Your task to perform on an android device: Open calendar and show me the first week of next month Image 0: 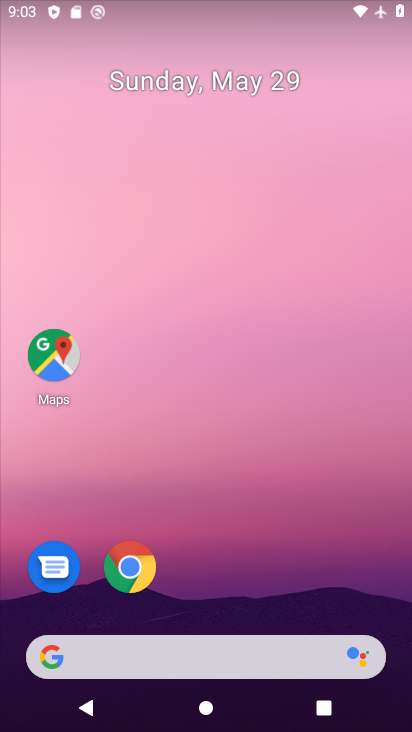
Step 0: drag from (397, 619) to (283, 50)
Your task to perform on an android device: Open calendar and show me the first week of next month Image 1: 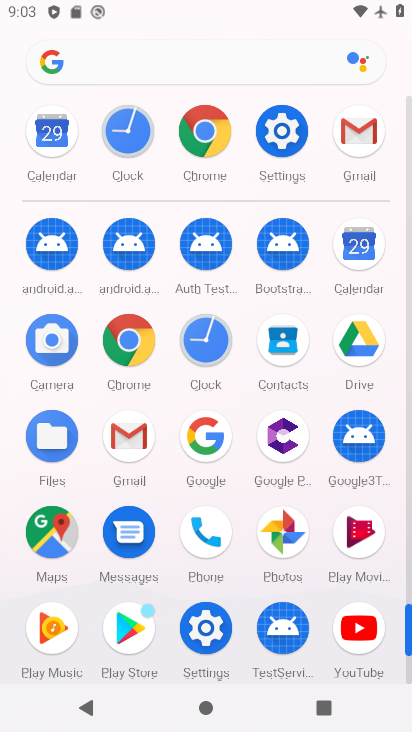
Step 1: click (358, 248)
Your task to perform on an android device: Open calendar and show me the first week of next month Image 2: 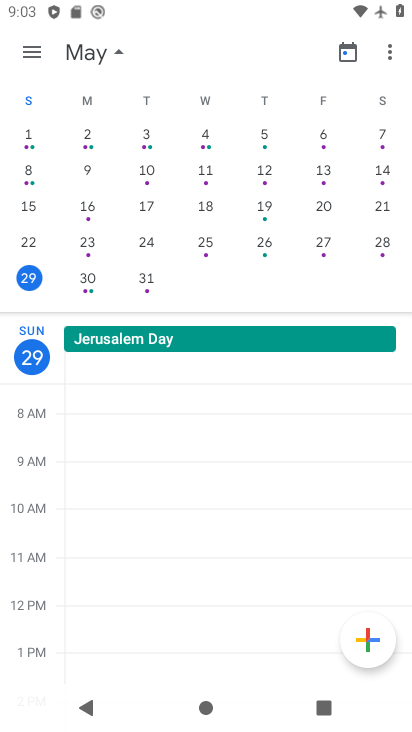
Step 2: click (27, 46)
Your task to perform on an android device: Open calendar and show me the first week of next month Image 3: 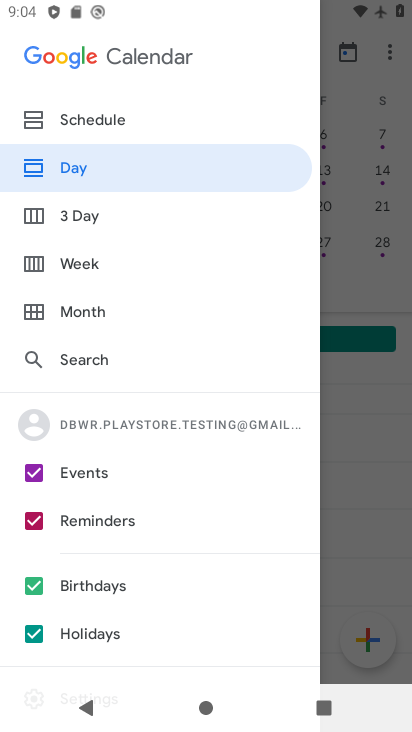
Step 3: click (78, 273)
Your task to perform on an android device: Open calendar and show me the first week of next month Image 4: 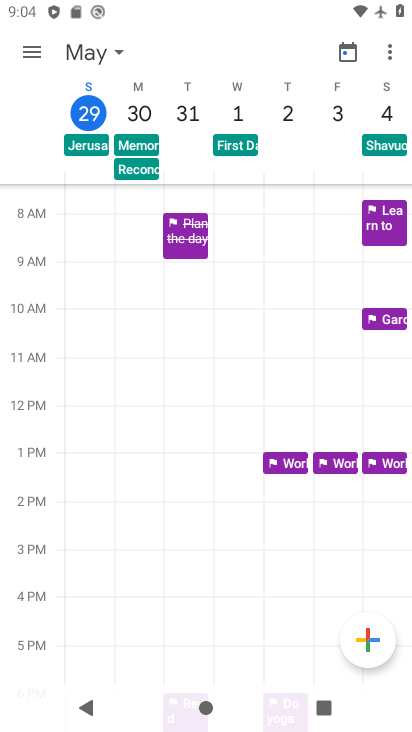
Step 4: click (119, 56)
Your task to perform on an android device: Open calendar and show me the first week of next month Image 5: 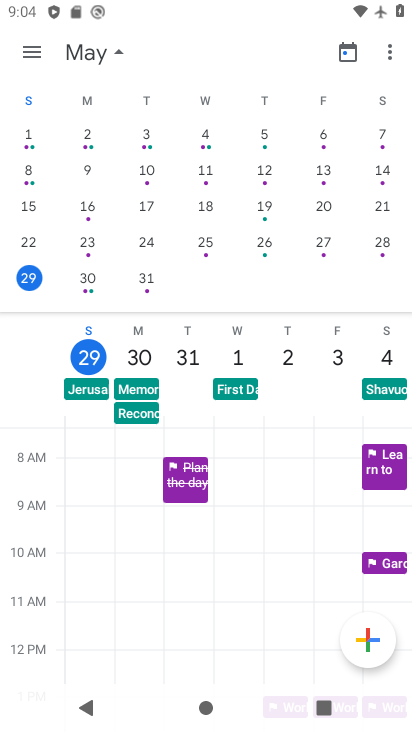
Step 5: drag from (389, 179) to (10, 147)
Your task to perform on an android device: Open calendar and show me the first week of next month Image 6: 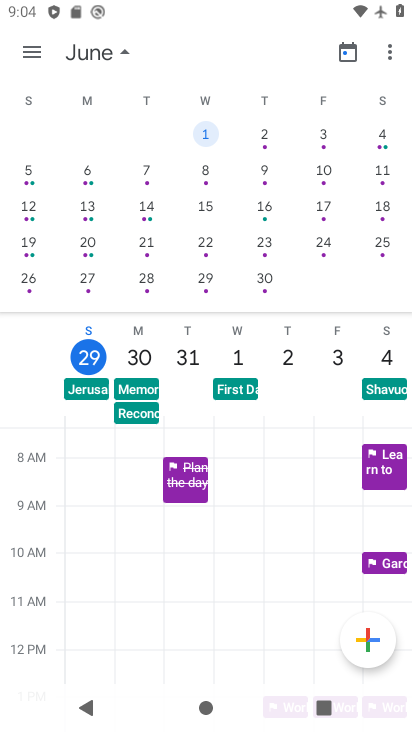
Step 6: click (26, 164)
Your task to perform on an android device: Open calendar and show me the first week of next month Image 7: 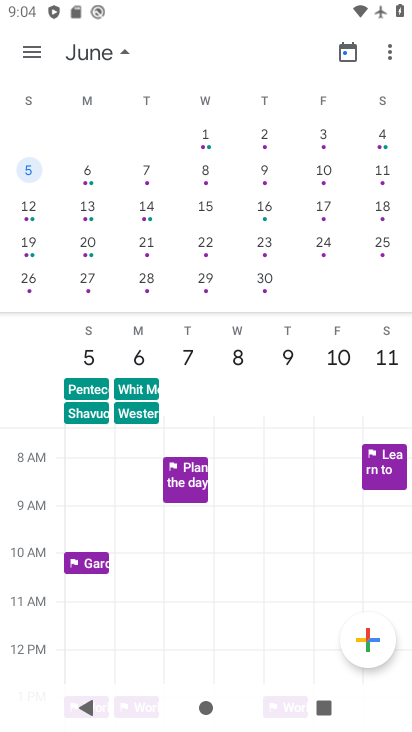
Step 7: task complete